Your task to perform on an android device: See recent photos Image 0: 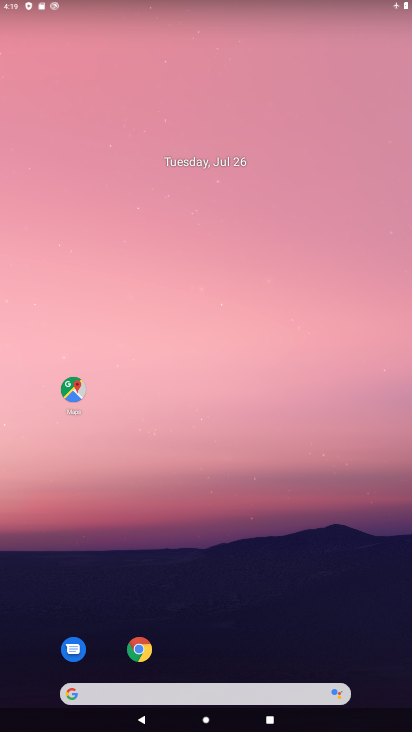
Step 0: drag from (216, 644) to (219, 224)
Your task to perform on an android device: See recent photos Image 1: 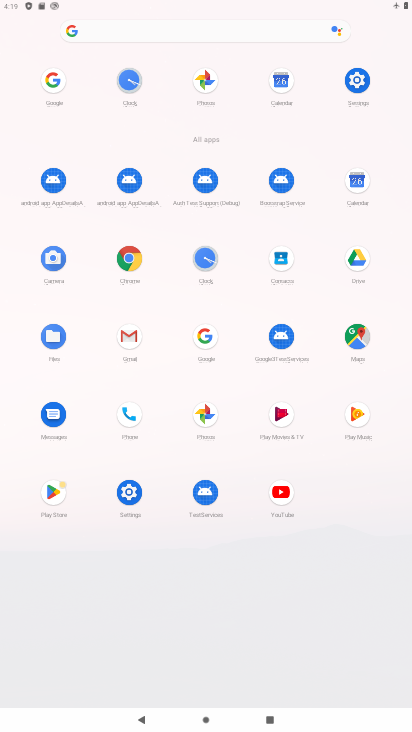
Step 1: click (209, 423)
Your task to perform on an android device: See recent photos Image 2: 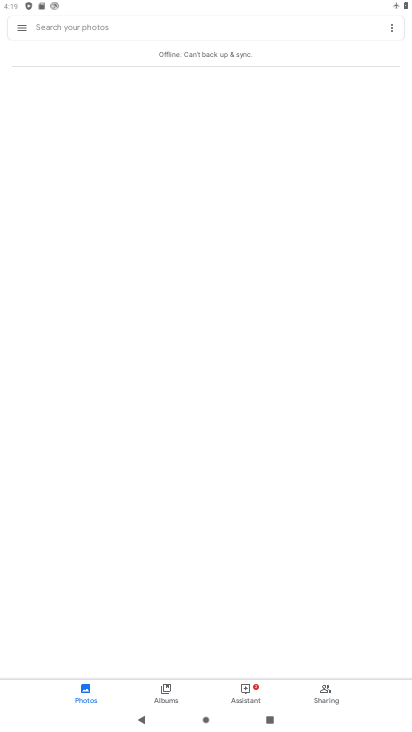
Step 2: task complete